Your task to perform on an android device: Open Android settings Image 0: 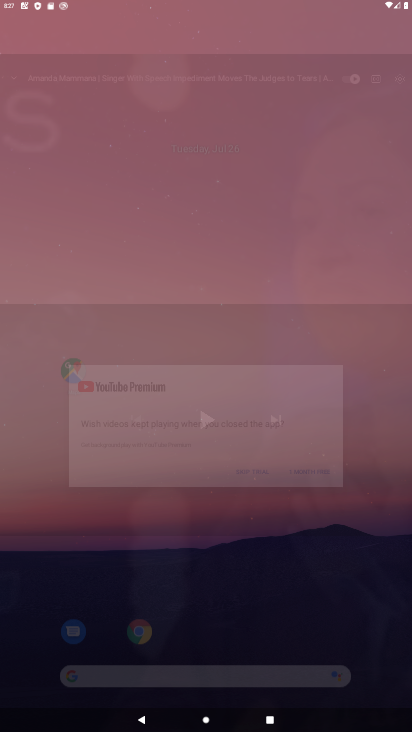
Step 0: click (195, 159)
Your task to perform on an android device: Open Android settings Image 1: 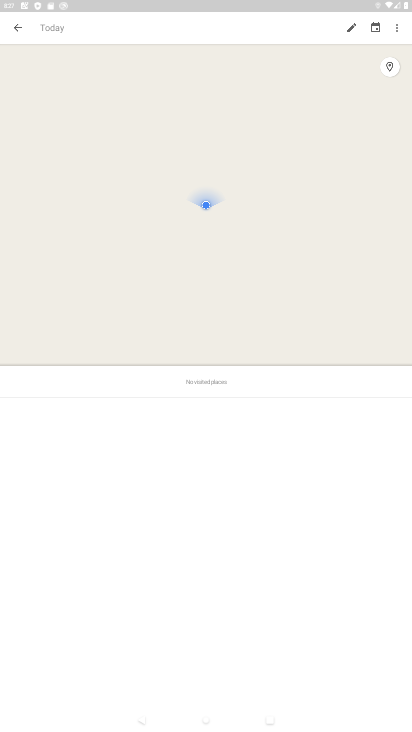
Step 1: press home button
Your task to perform on an android device: Open Android settings Image 2: 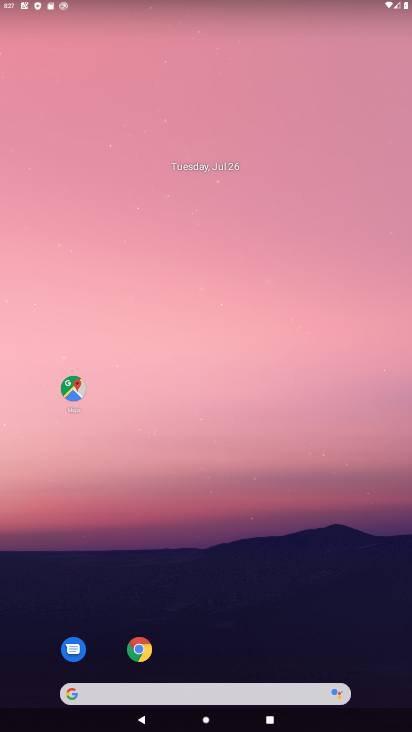
Step 2: drag from (226, 666) to (370, 20)
Your task to perform on an android device: Open Android settings Image 3: 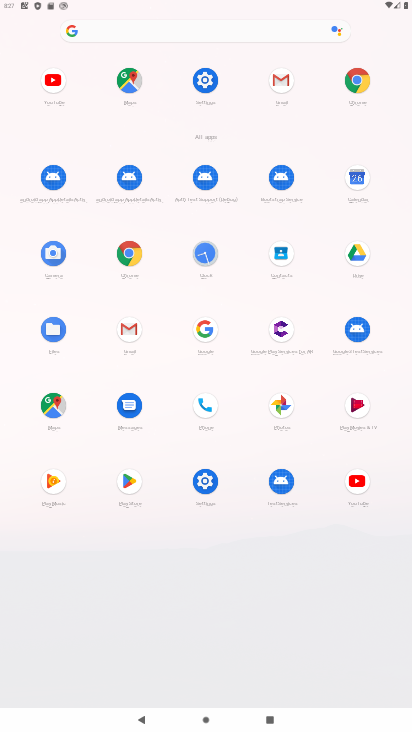
Step 3: click (211, 103)
Your task to perform on an android device: Open Android settings Image 4: 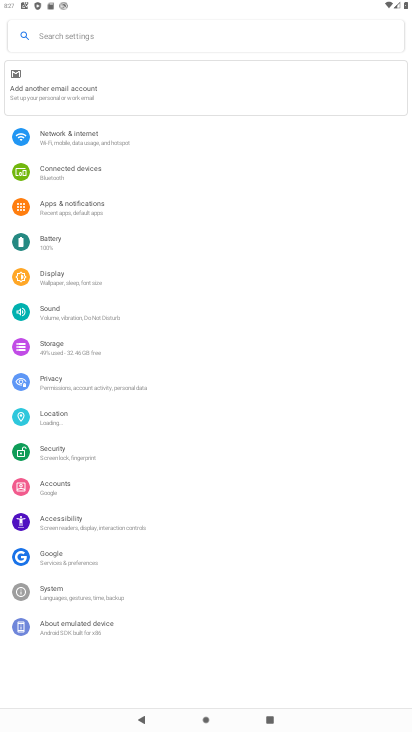
Step 4: task complete